Your task to perform on an android device: toggle data saver in the chrome app Image 0: 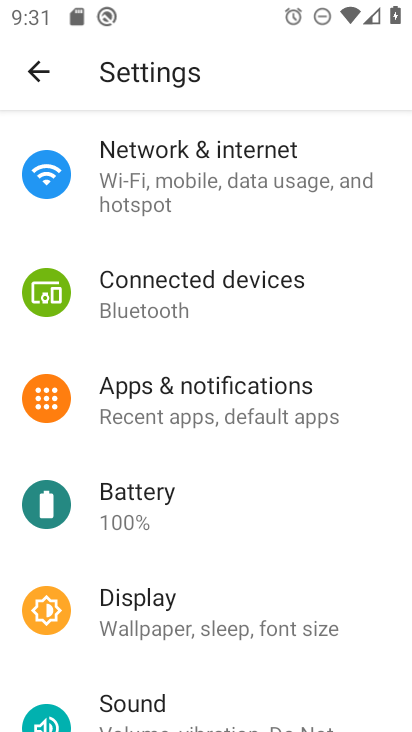
Step 0: press home button
Your task to perform on an android device: toggle data saver in the chrome app Image 1: 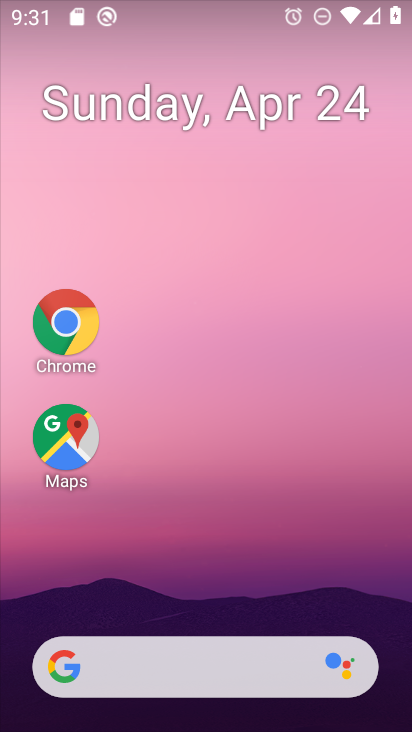
Step 1: click (69, 323)
Your task to perform on an android device: toggle data saver in the chrome app Image 2: 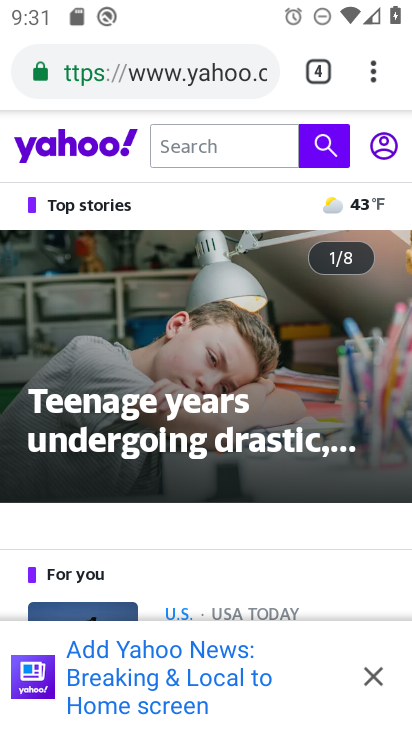
Step 2: click (370, 69)
Your task to perform on an android device: toggle data saver in the chrome app Image 3: 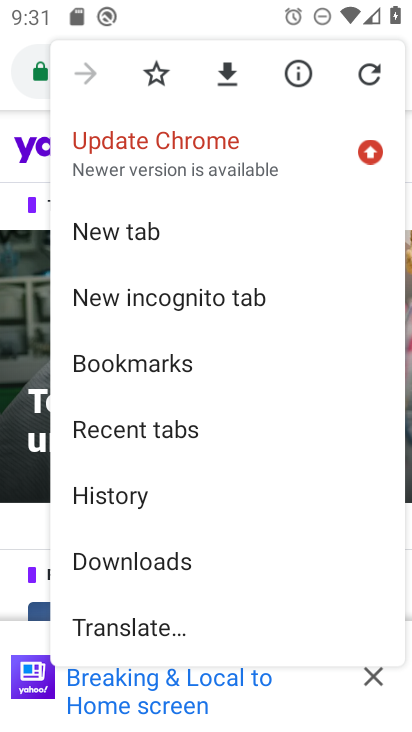
Step 3: drag from (265, 552) to (238, 270)
Your task to perform on an android device: toggle data saver in the chrome app Image 4: 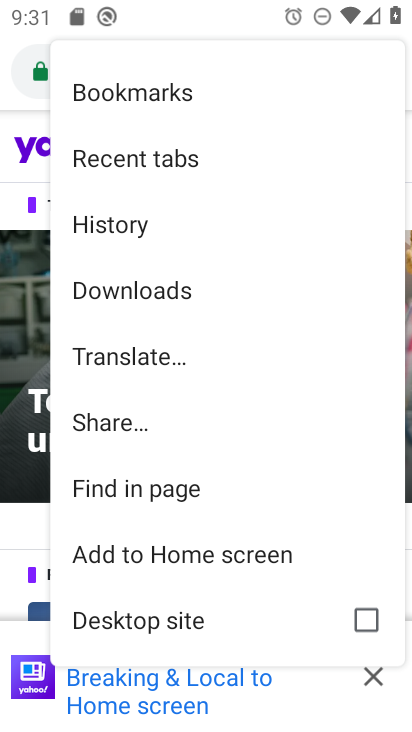
Step 4: drag from (268, 467) to (232, 202)
Your task to perform on an android device: toggle data saver in the chrome app Image 5: 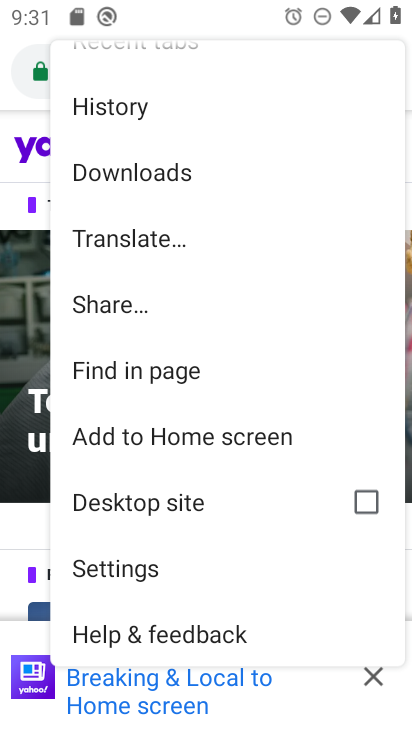
Step 5: click (122, 573)
Your task to perform on an android device: toggle data saver in the chrome app Image 6: 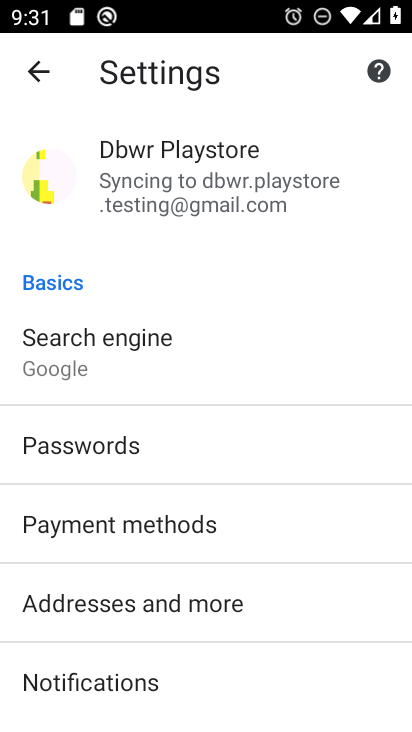
Step 6: drag from (224, 623) to (224, 238)
Your task to perform on an android device: toggle data saver in the chrome app Image 7: 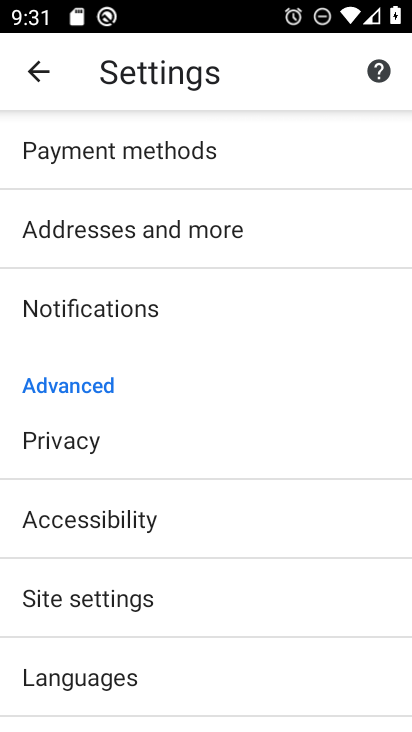
Step 7: drag from (209, 576) to (176, 348)
Your task to perform on an android device: toggle data saver in the chrome app Image 8: 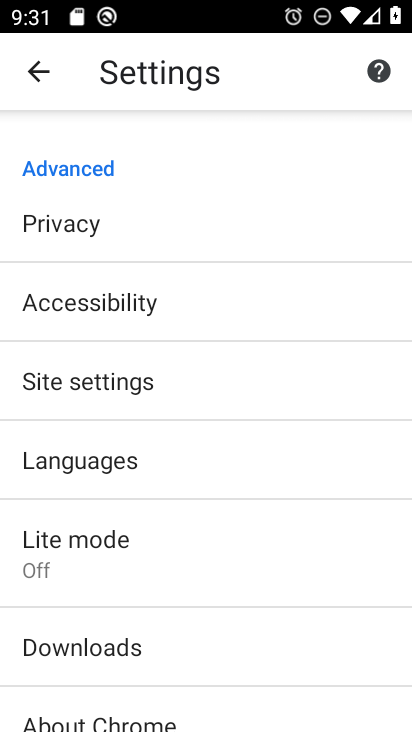
Step 8: click (101, 547)
Your task to perform on an android device: toggle data saver in the chrome app Image 9: 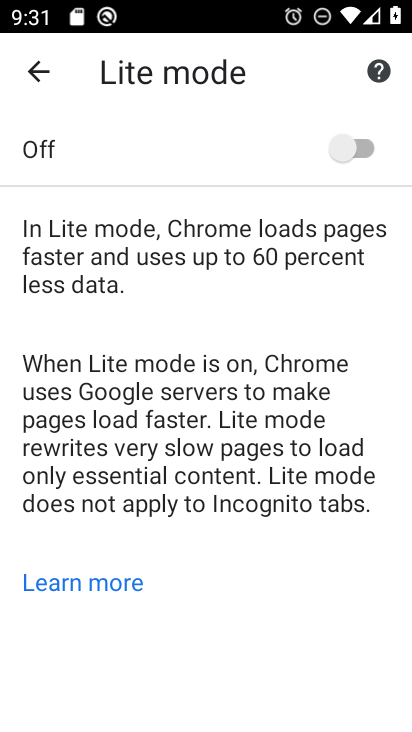
Step 9: click (343, 150)
Your task to perform on an android device: toggle data saver in the chrome app Image 10: 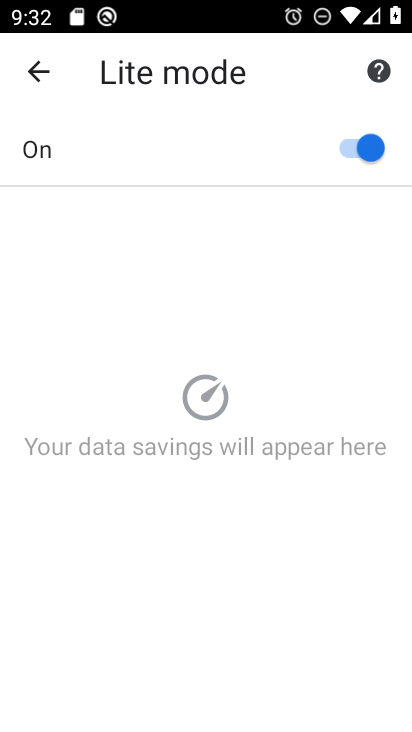
Step 10: task complete